Your task to perform on an android device: snooze an email in the gmail app Image 0: 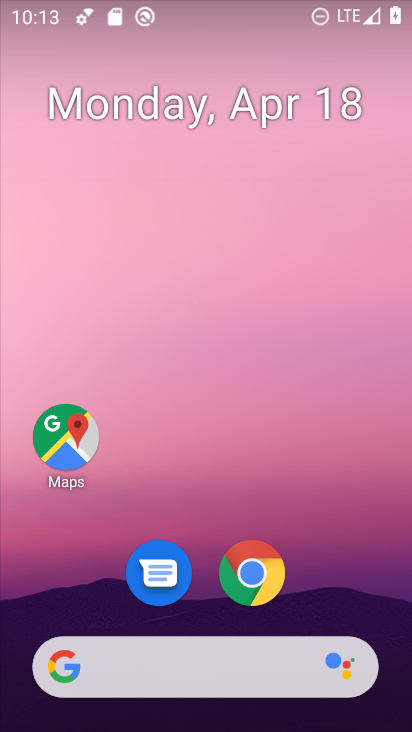
Step 0: drag from (343, 599) to (213, 20)
Your task to perform on an android device: snooze an email in the gmail app Image 1: 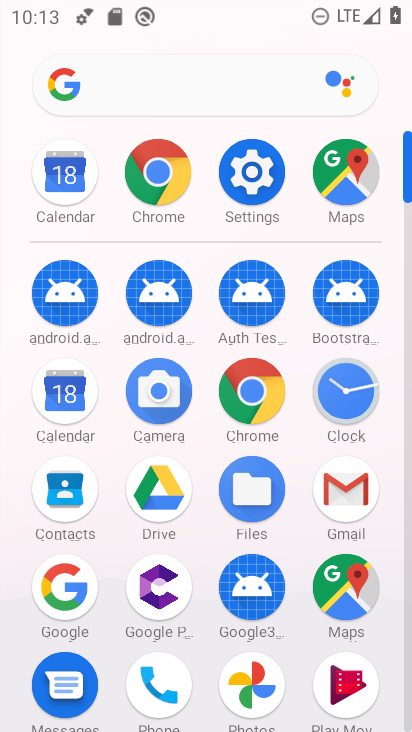
Step 1: click (356, 511)
Your task to perform on an android device: snooze an email in the gmail app Image 2: 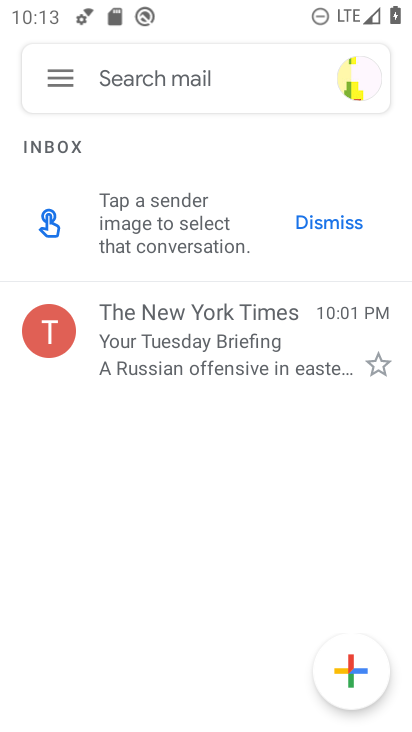
Step 2: click (175, 320)
Your task to perform on an android device: snooze an email in the gmail app Image 3: 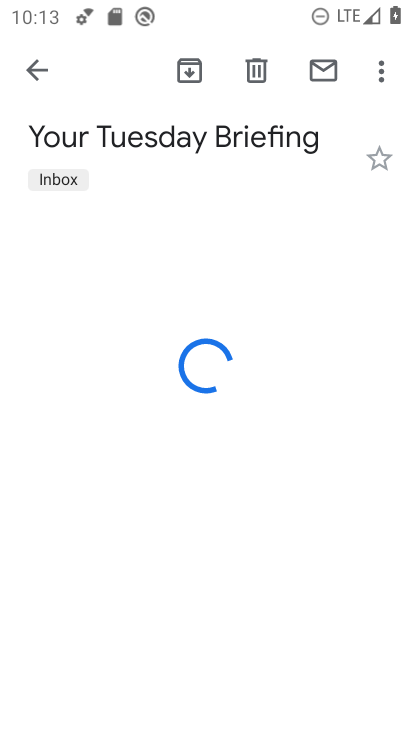
Step 3: click (372, 72)
Your task to perform on an android device: snooze an email in the gmail app Image 4: 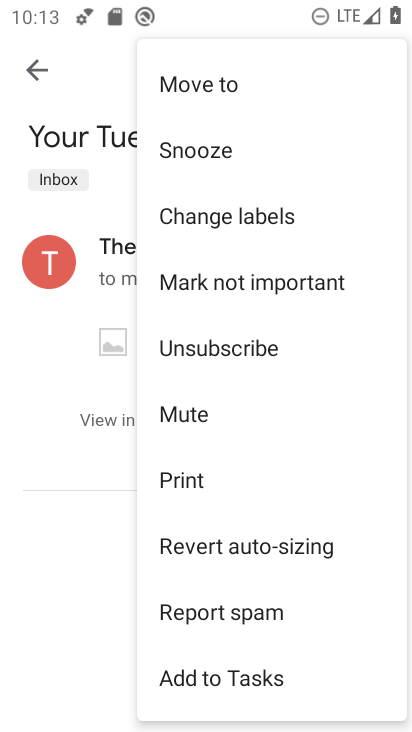
Step 4: click (260, 161)
Your task to perform on an android device: snooze an email in the gmail app Image 5: 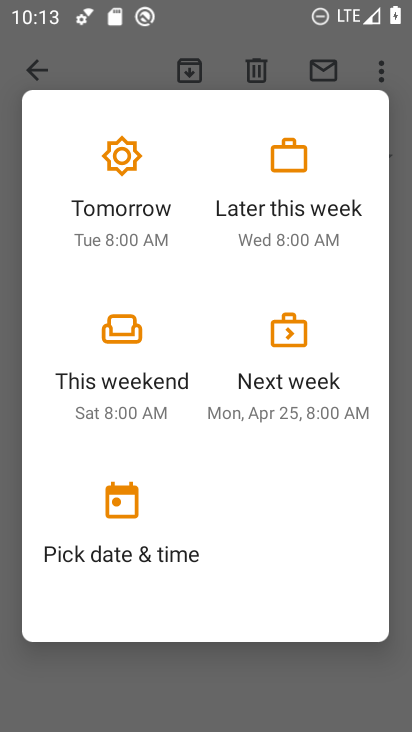
Step 5: click (284, 183)
Your task to perform on an android device: snooze an email in the gmail app Image 6: 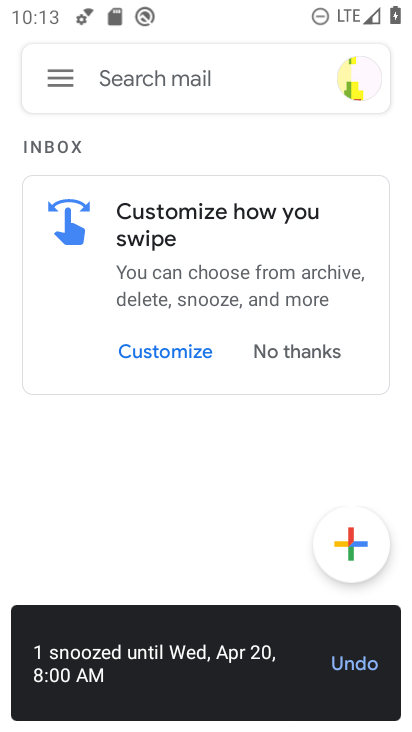
Step 6: task complete